Your task to perform on an android device: set an alarm Image 0: 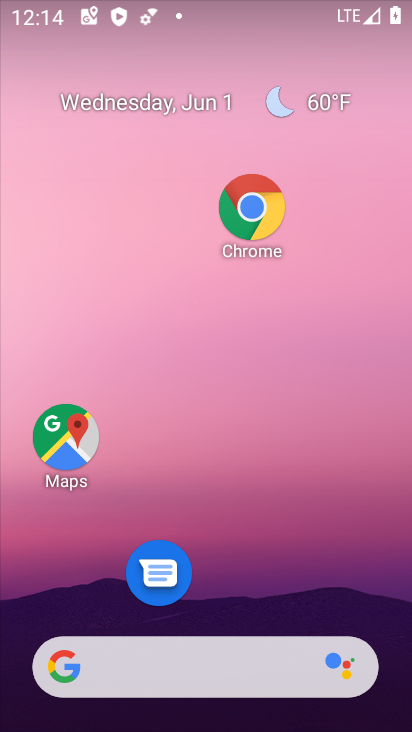
Step 0: drag from (234, 600) to (211, 178)
Your task to perform on an android device: set an alarm Image 1: 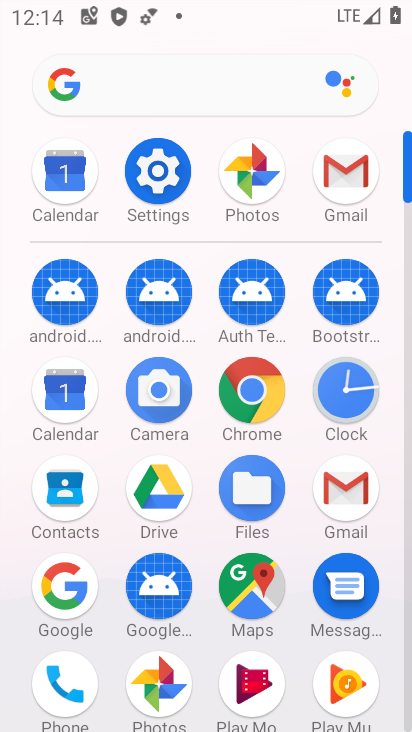
Step 1: click (328, 399)
Your task to perform on an android device: set an alarm Image 2: 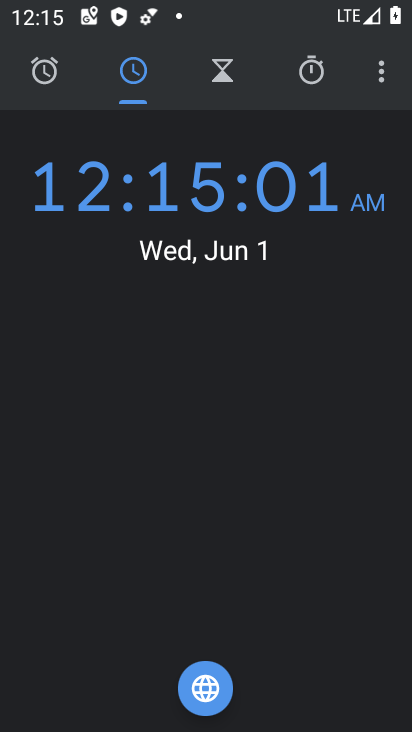
Step 2: click (53, 75)
Your task to perform on an android device: set an alarm Image 3: 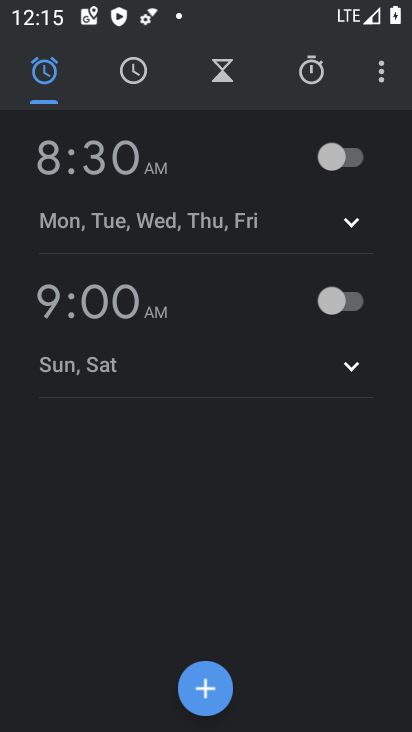
Step 3: click (353, 155)
Your task to perform on an android device: set an alarm Image 4: 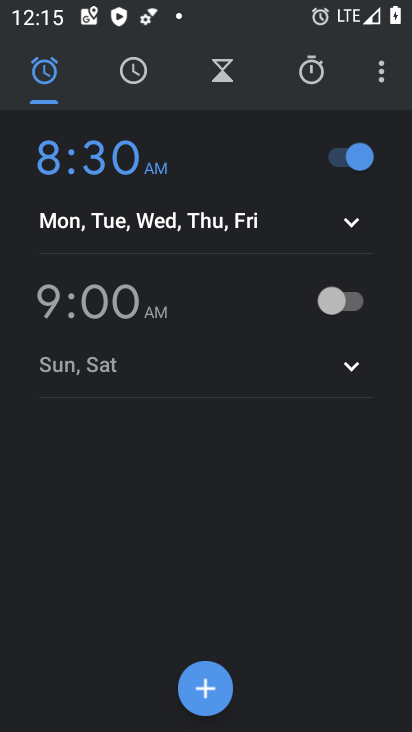
Step 4: task complete